Your task to perform on an android device: Open Maps and search for coffee Image 0: 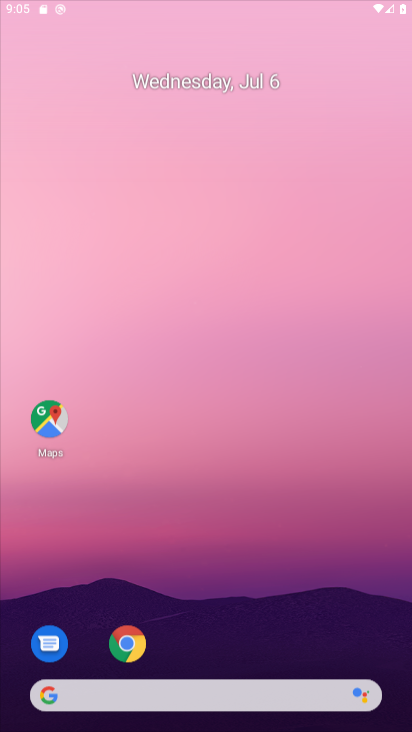
Step 0: press home button
Your task to perform on an android device: Open Maps and search for coffee Image 1: 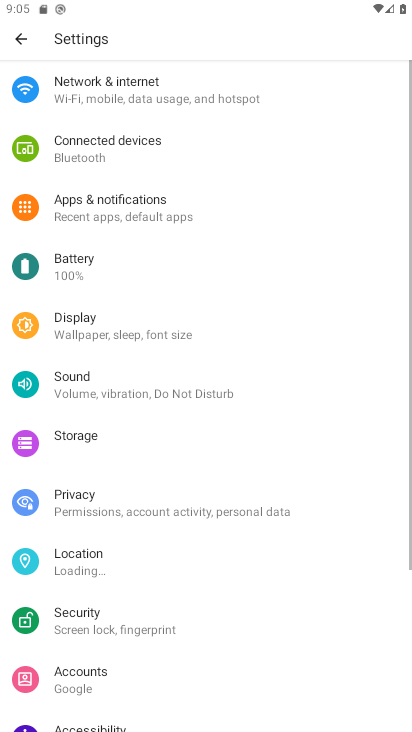
Step 1: drag from (251, 573) to (226, 79)
Your task to perform on an android device: Open Maps and search for coffee Image 2: 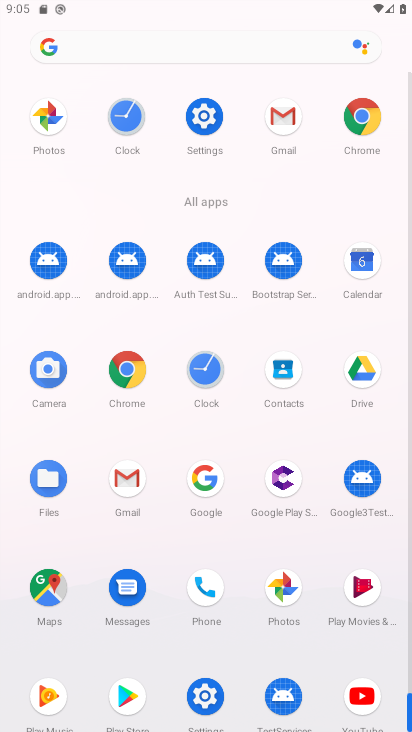
Step 2: drag from (210, 497) to (205, 275)
Your task to perform on an android device: Open Maps and search for coffee Image 3: 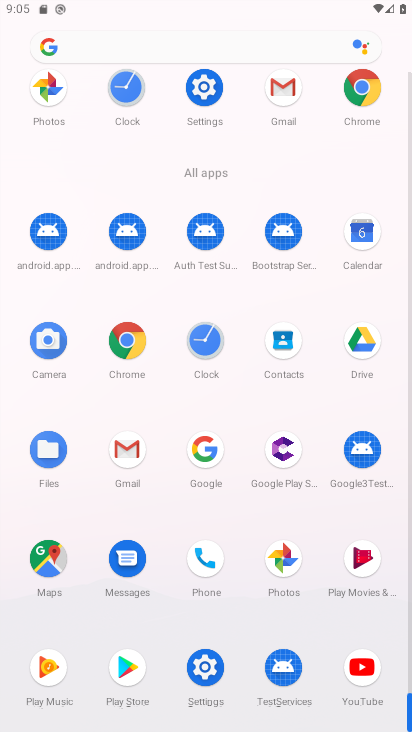
Step 3: click (29, 566)
Your task to perform on an android device: Open Maps and search for coffee Image 4: 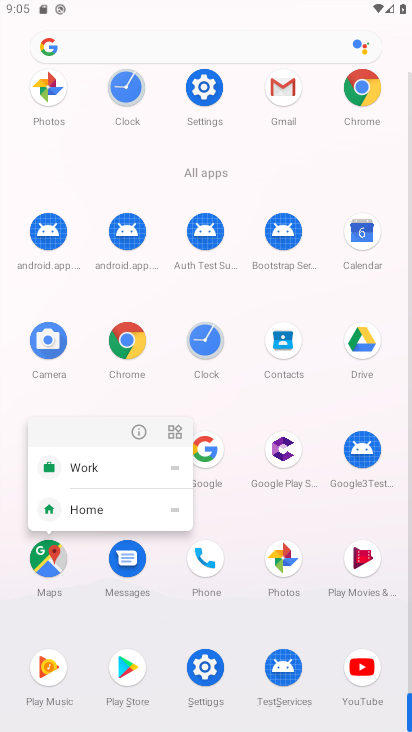
Step 4: click (50, 568)
Your task to perform on an android device: Open Maps and search for coffee Image 5: 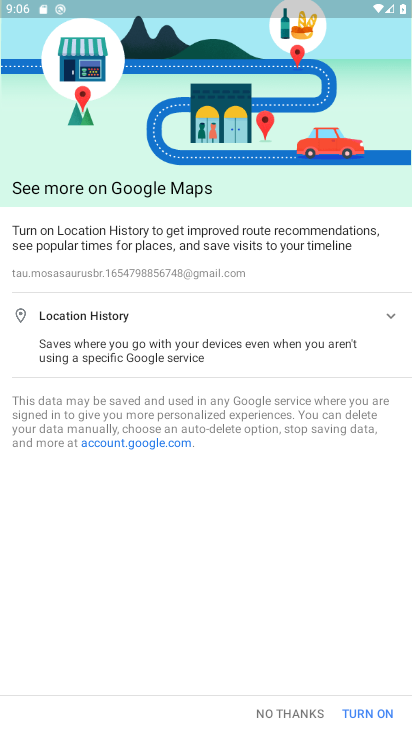
Step 5: click (364, 710)
Your task to perform on an android device: Open Maps and search for coffee Image 6: 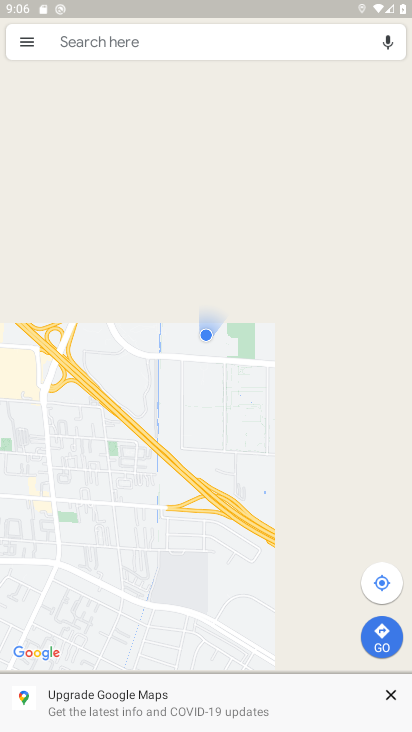
Step 6: click (379, 712)
Your task to perform on an android device: Open Maps and search for coffee Image 7: 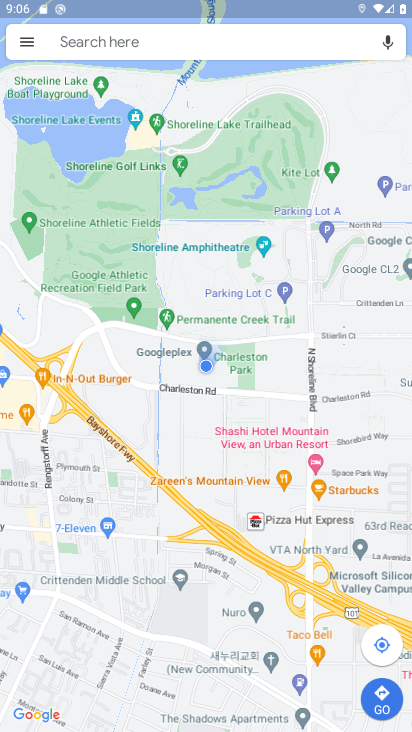
Step 7: click (156, 38)
Your task to perform on an android device: Open Maps and search for coffee Image 8: 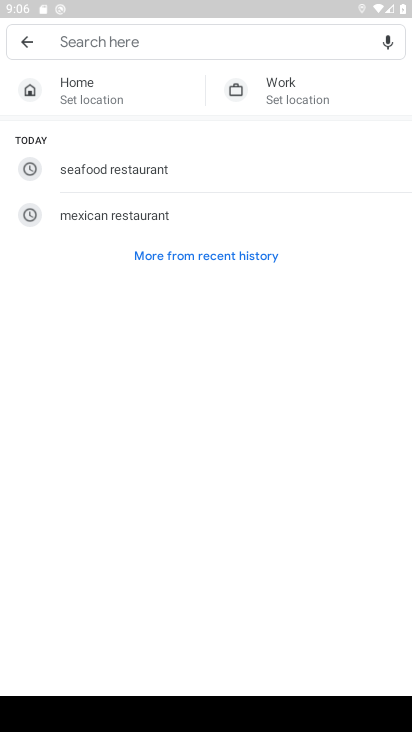
Step 8: type "coffee"
Your task to perform on an android device: Open Maps and search for coffee Image 9: 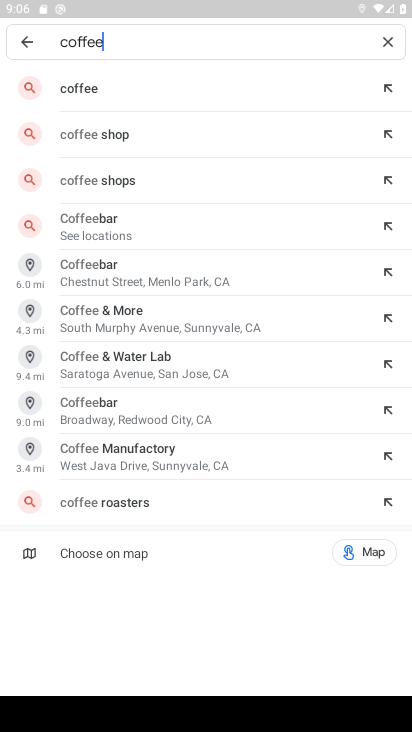
Step 9: click (167, 80)
Your task to perform on an android device: Open Maps and search for coffee Image 10: 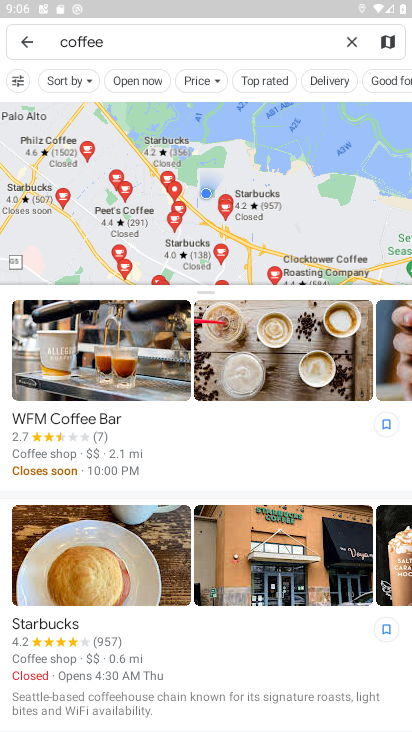
Step 10: task complete